Your task to perform on an android device: make emails show in primary in the gmail app Image 0: 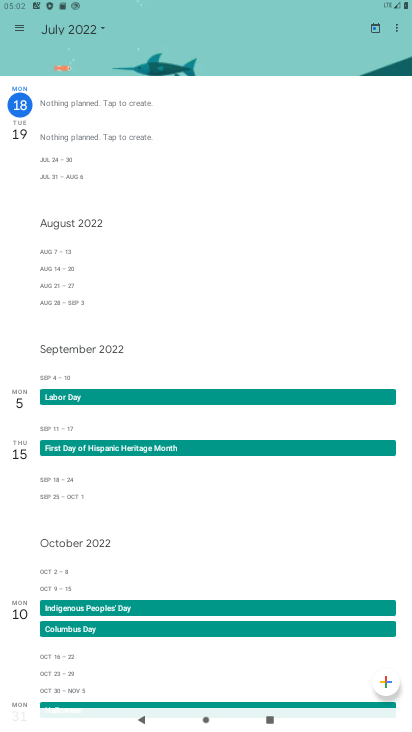
Step 0: press home button
Your task to perform on an android device: make emails show in primary in the gmail app Image 1: 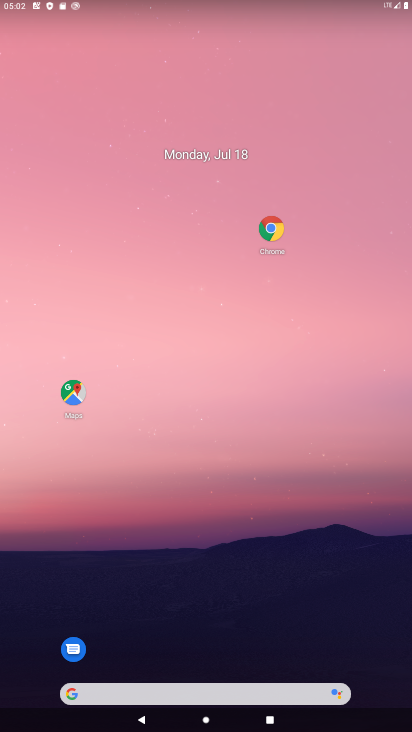
Step 1: drag from (188, 650) to (166, 25)
Your task to perform on an android device: make emails show in primary in the gmail app Image 2: 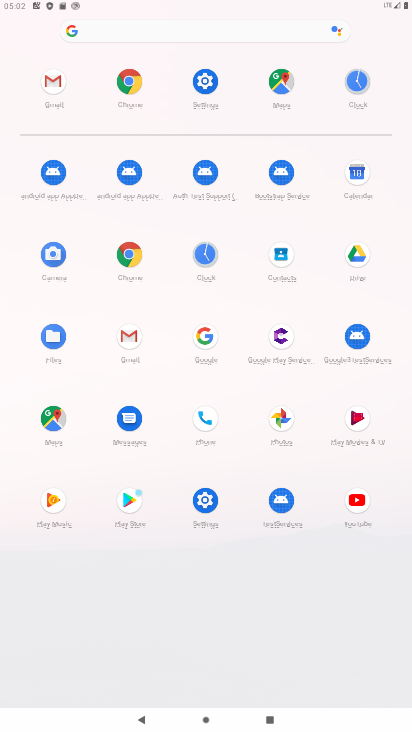
Step 2: click (43, 91)
Your task to perform on an android device: make emails show in primary in the gmail app Image 3: 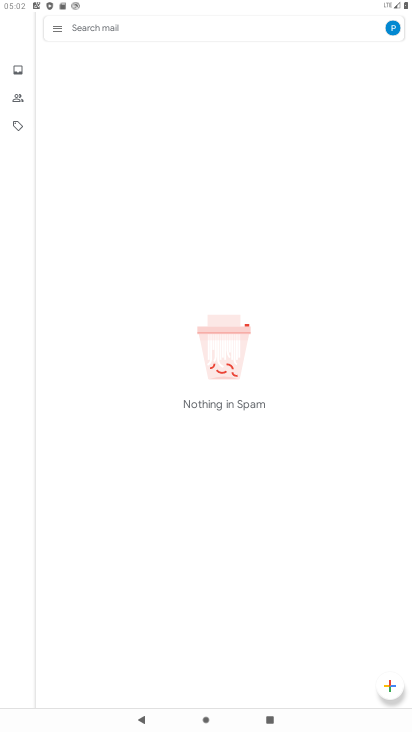
Step 3: click (52, 28)
Your task to perform on an android device: make emails show in primary in the gmail app Image 4: 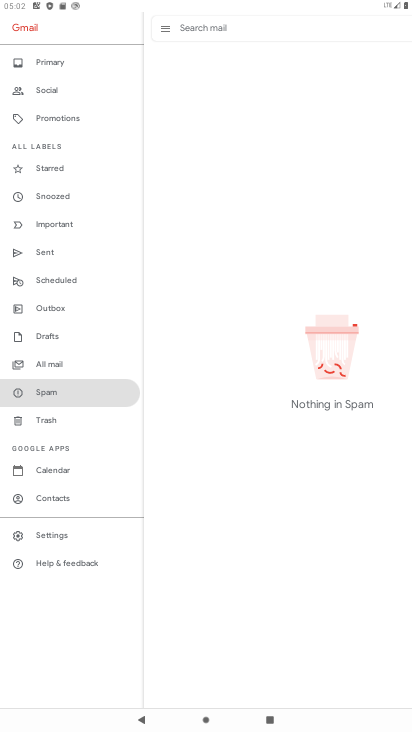
Step 4: click (58, 58)
Your task to perform on an android device: make emails show in primary in the gmail app Image 5: 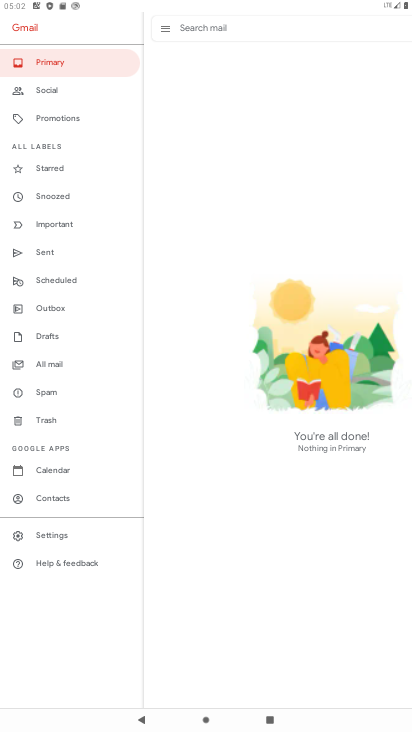
Step 5: task complete